Your task to perform on an android device: change the clock display to analog Image 0: 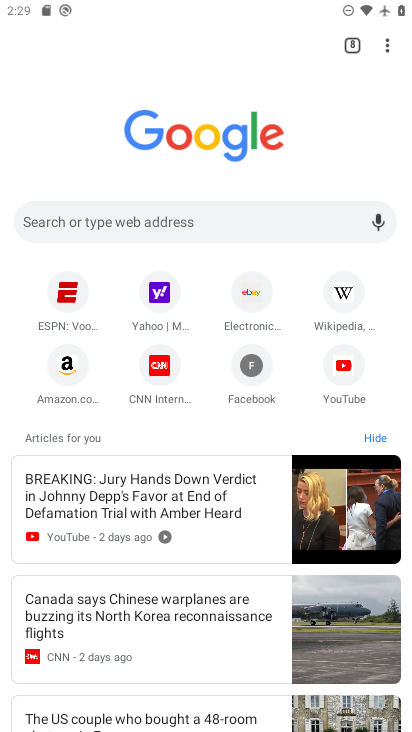
Step 0: press home button
Your task to perform on an android device: change the clock display to analog Image 1: 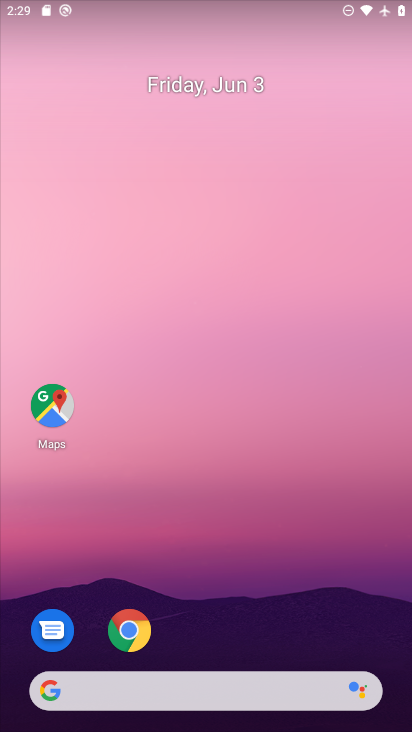
Step 1: drag from (221, 722) to (192, 57)
Your task to perform on an android device: change the clock display to analog Image 2: 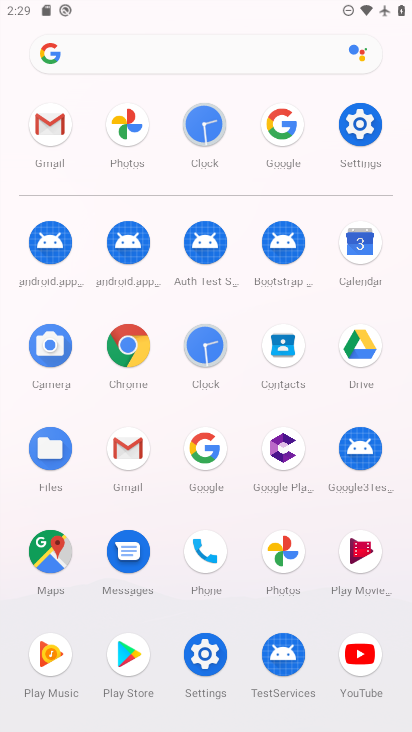
Step 2: click (209, 348)
Your task to perform on an android device: change the clock display to analog Image 3: 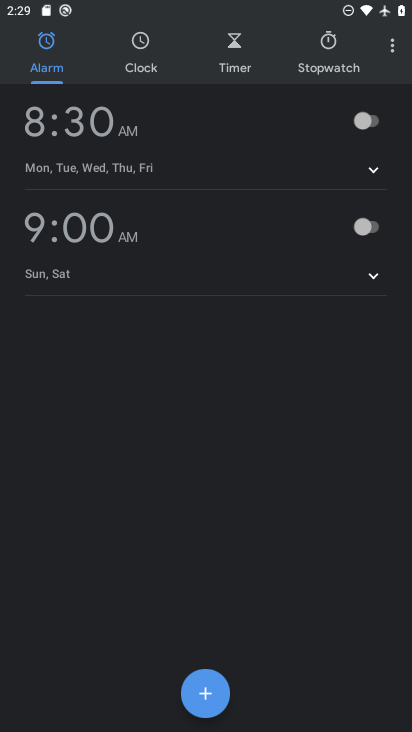
Step 3: click (394, 52)
Your task to perform on an android device: change the clock display to analog Image 4: 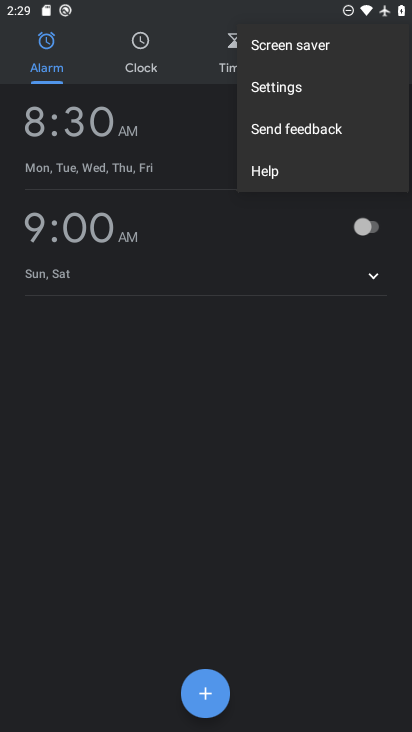
Step 4: click (283, 87)
Your task to perform on an android device: change the clock display to analog Image 5: 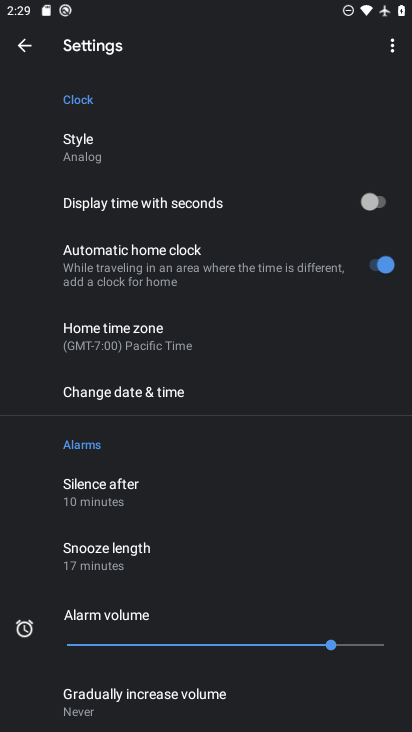
Step 5: task complete